Your task to perform on an android device: turn on sleep mode Image 0: 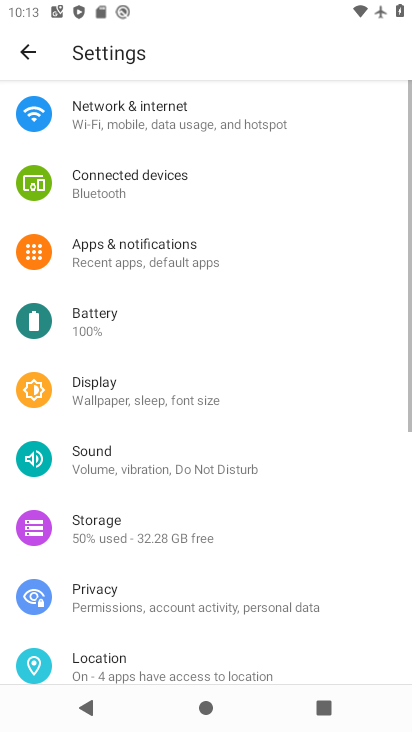
Step 0: press home button
Your task to perform on an android device: turn on sleep mode Image 1: 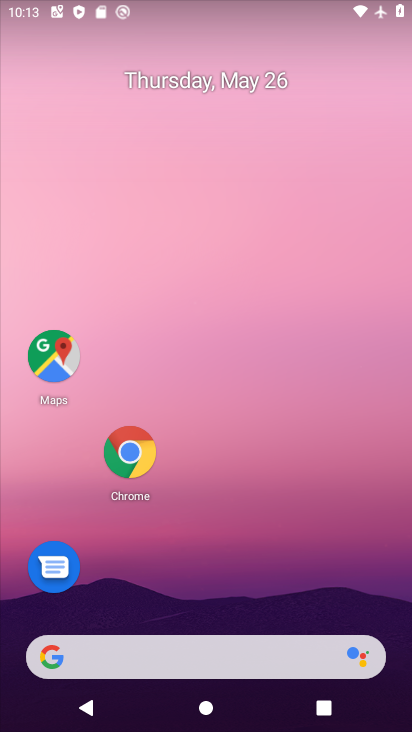
Step 1: drag from (237, 637) to (310, 85)
Your task to perform on an android device: turn on sleep mode Image 2: 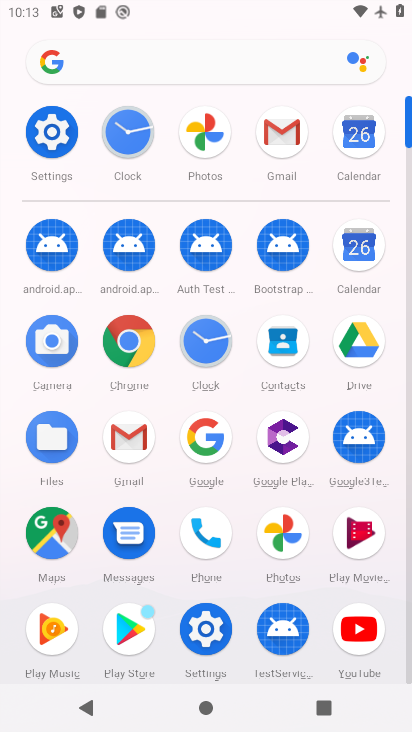
Step 2: click (63, 143)
Your task to perform on an android device: turn on sleep mode Image 3: 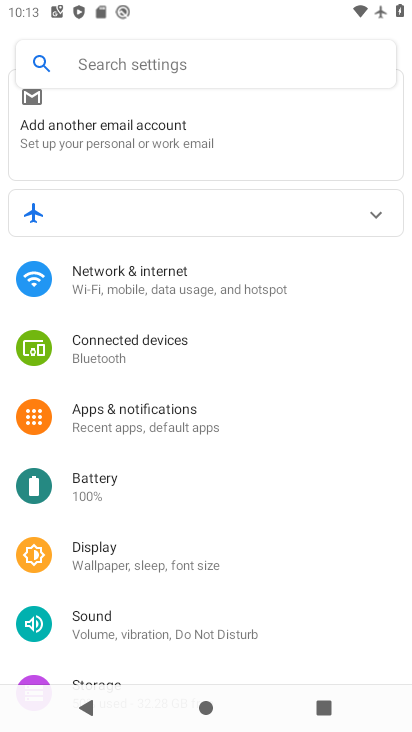
Step 3: drag from (230, 510) to (328, 127)
Your task to perform on an android device: turn on sleep mode Image 4: 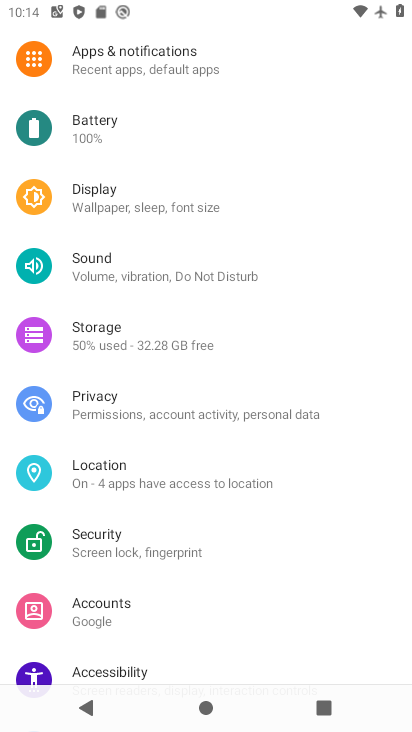
Step 4: click (153, 207)
Your task to perform on an android device: turn on sleep mode Image 5: 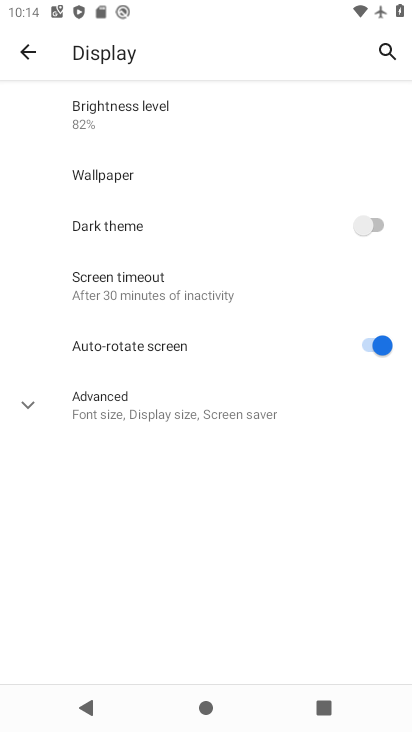
Step 5: task complete